Your task to perform on an android device: Is it going to rain today? Image 0: 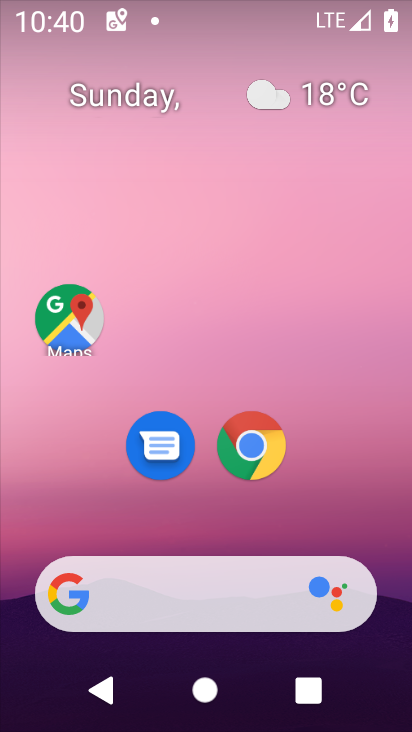
Step 0: click (315, 90)
Your task to perform on an android device: Is it going to rain today? Image 1: 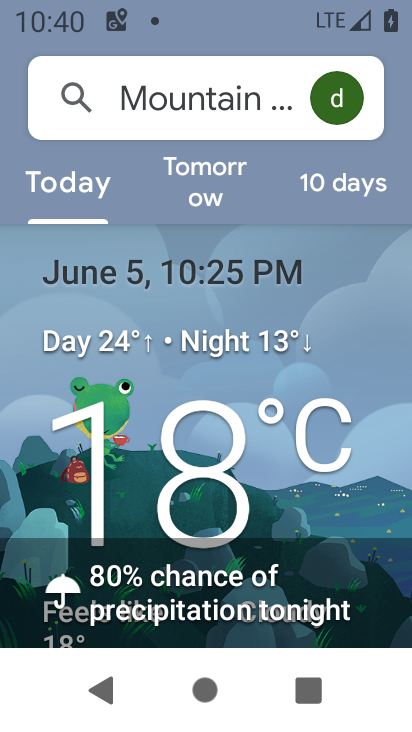
Step 1: task complete